Your task to perform on an android device: turn off notifications in google photos Image 0: 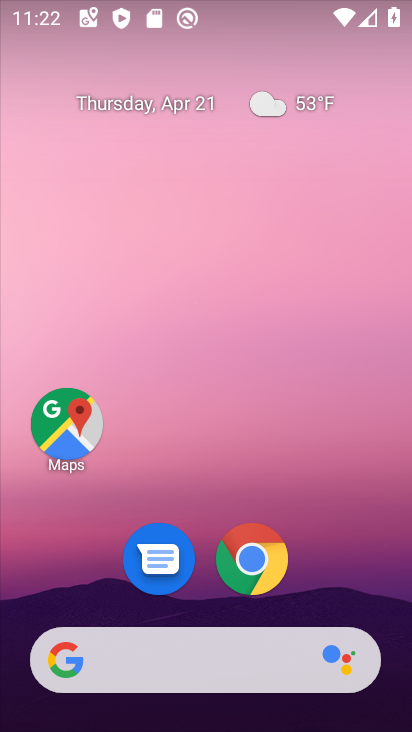
Step 0: drag from (380, 561) to (385, 19)
Your task to perform on an android device: turn off notifications in google photos Image 1: 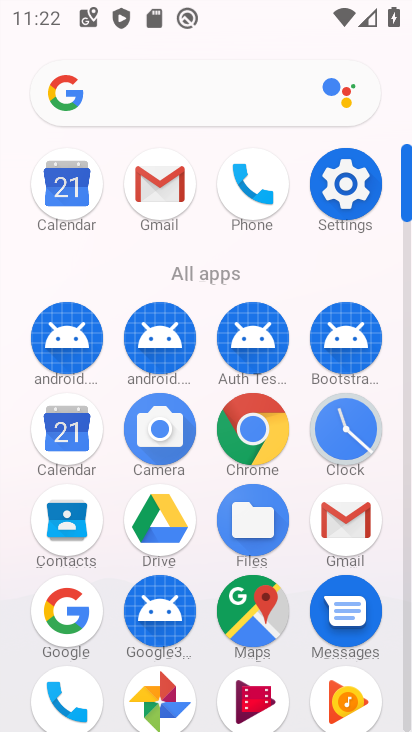
Step 1: click (160, 694)
Your task to perform on an android device: turn off notifications in google photos Image 2: 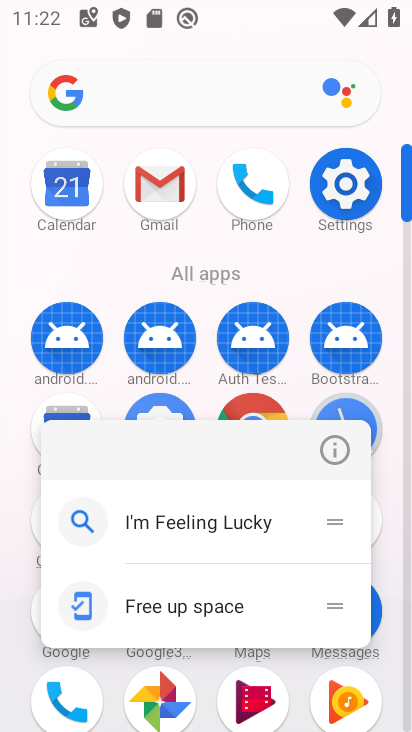
Step 2: click (160, 694)
Your task to perform on an android device: turn off notifications in google photos Image 3: 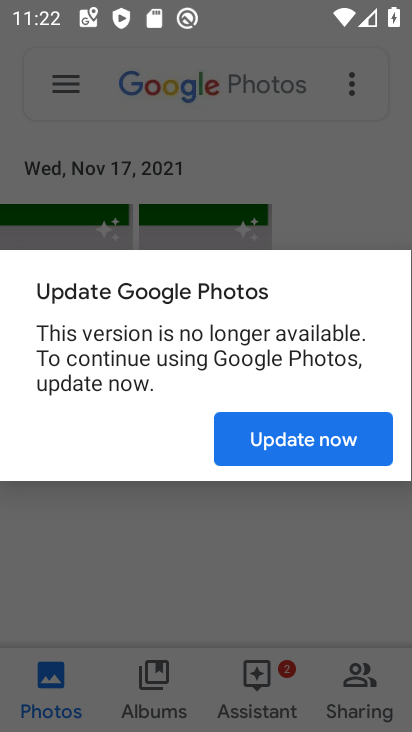
Step 3: click (296, 432)
Your task to perform on an android device: turn off notifications in google photos Image 4: 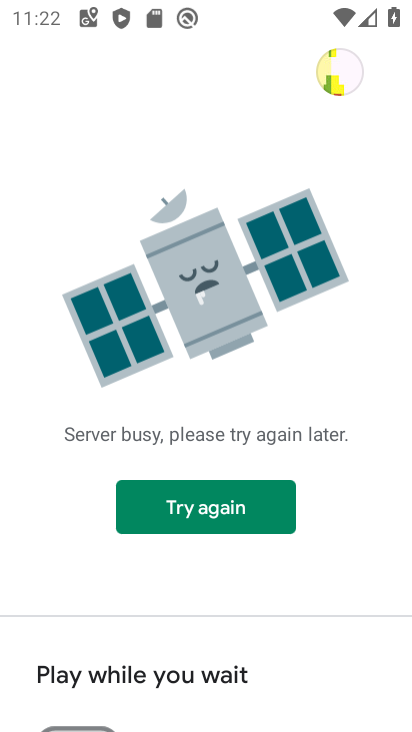
Step 4: press back button
Your task to perform on an android device: turn off notifications in google photos Image 5: 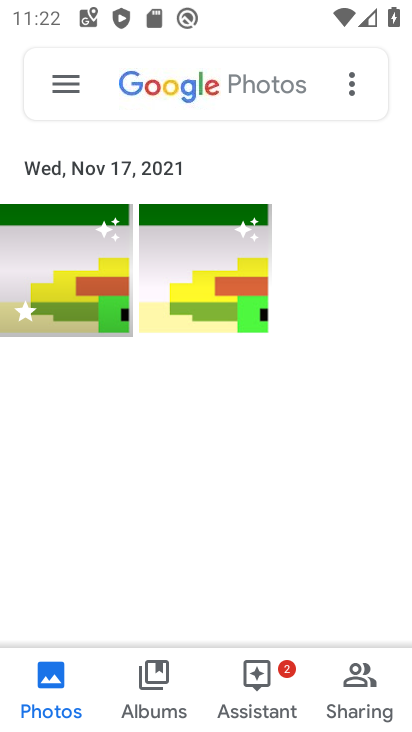
Step 5: click (73, 93)
Your task to perform on an android device: turn off notifications in google photos Image 6: 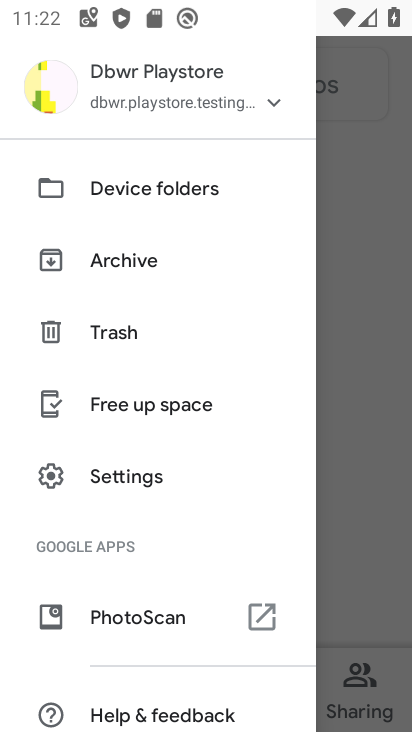
Step 6: click (153, 480)
Your task to perform on an android device: turn off notifications in google photos Image 7: 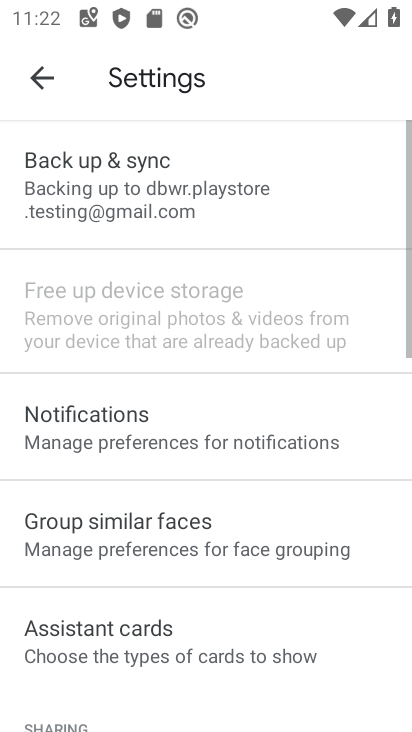
Step 7: click (159, 449)
Your task to perform on an android device: turn off notifications in google photos Image 8: 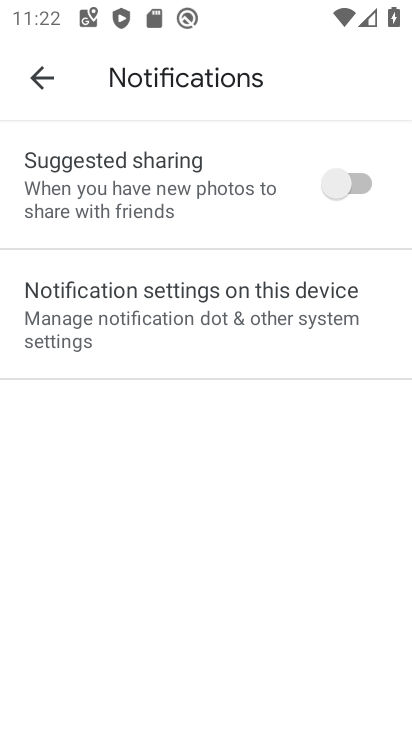
Step 8: click (216, 307)
Your task to perform on an android device: turn off notifications in google photos Image 9: 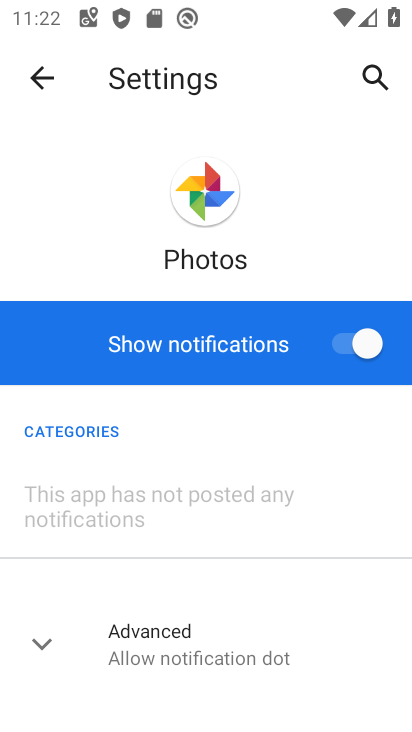
Step 9: click (360, 364)
Your task to perform on an android device: turn off notifications in google photos Image 10: 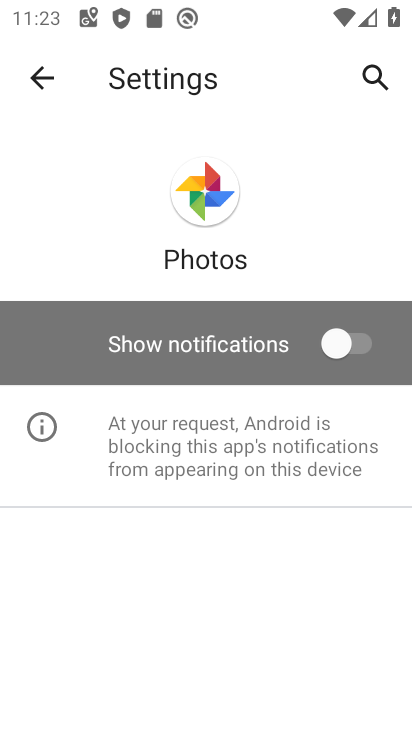
Step 10: task complete